Your task to perform on an android device: Search for Italian restaurants on Maps Image 0: 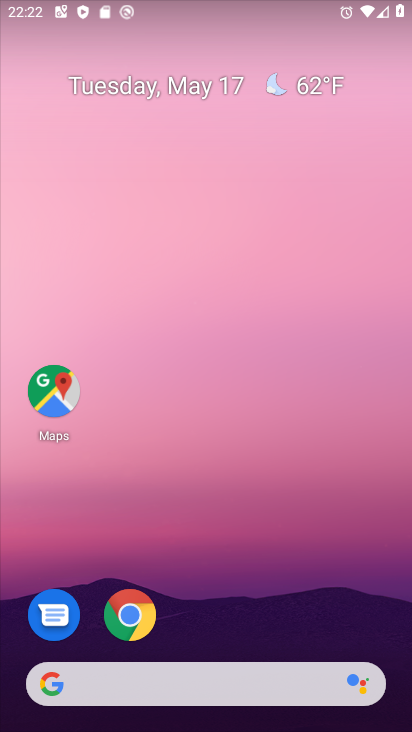
Step 0: press home button
Your task to perform on an android device: Search for Italian restaurants on Maps Image 1: 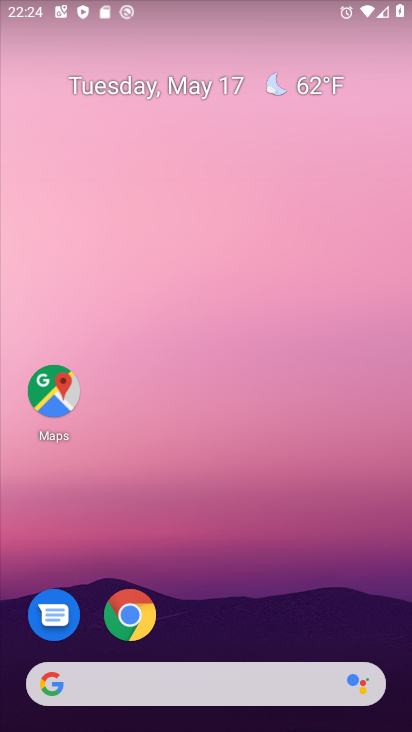
Step 1: click (59, 380)
Your task to perform on an android device: Search for Italian restaurants on Maps Image 2: 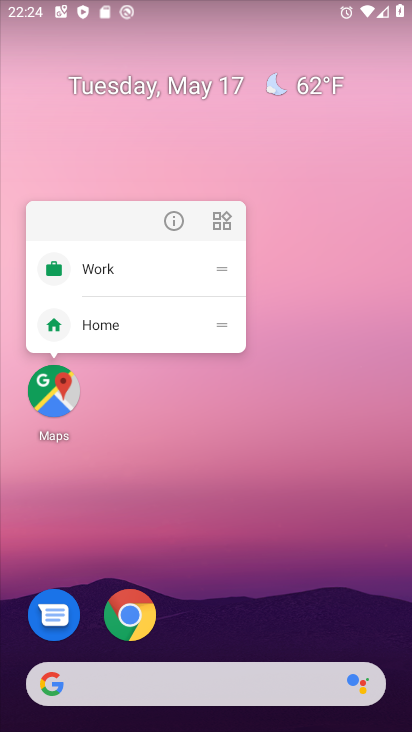
Step 2: click (59, 380)
Your task to perform on an android device: Search for Italian restaurants on Maps Image 3: 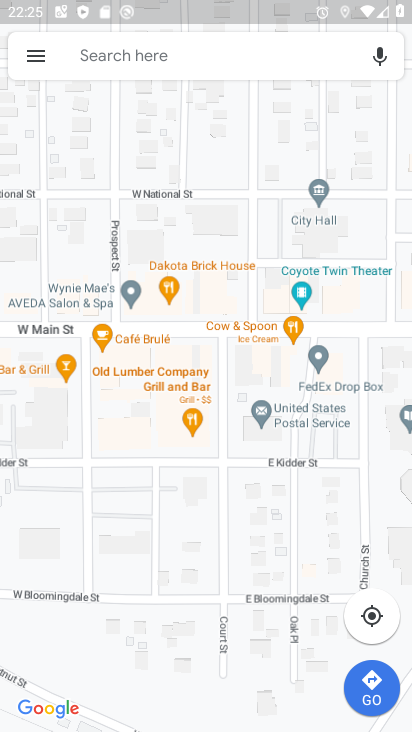
Step 3: click (120, 42)
Your task to perform on an android device: Search for Italian restaurants on Maps Image 4: 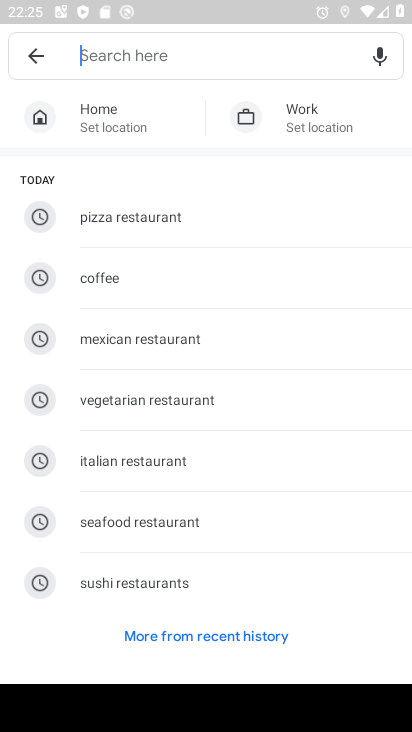
Step 4: type "Italian restaurants"
Your task to perform on an android device: Search for Italian restaurants on Maps Image 5: 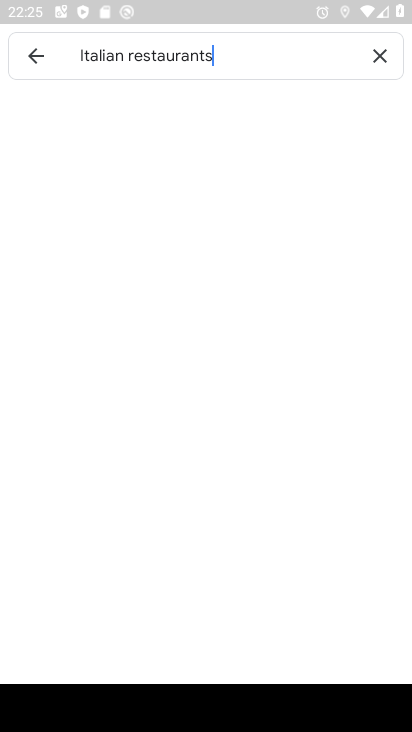
Step 5: type ""
Your task to perform on an android device: Search for Italian restaurants on Maps Image 6: 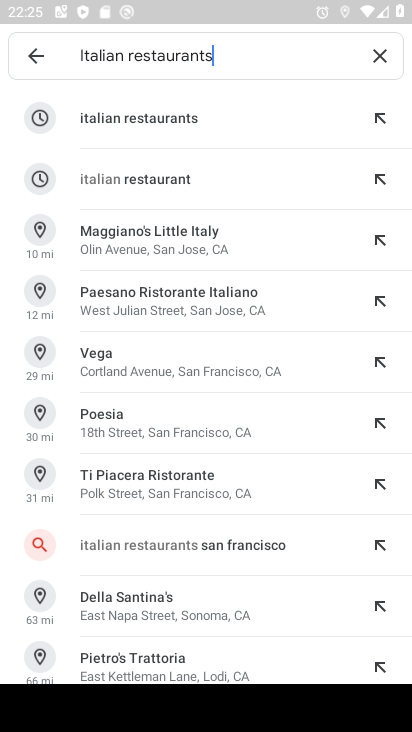
Step 6: click (192, 105)
Your task to perform on an android device: Search for Italian restaurants on Maps Image 7: 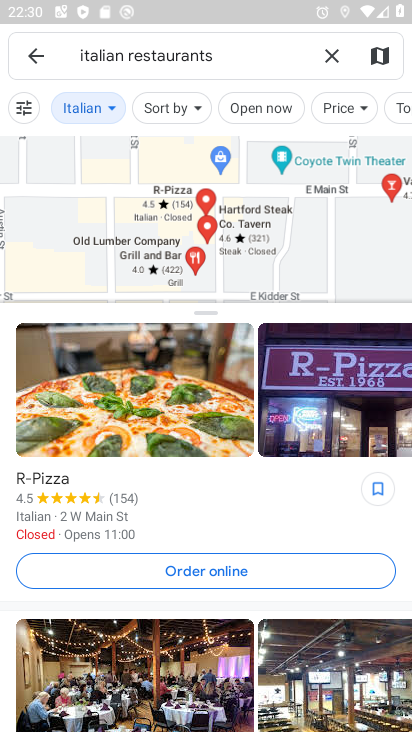
Step 7: task complete